Your task to perform on an android device: Open Youtube and go to the subscriptions tab Image 0: 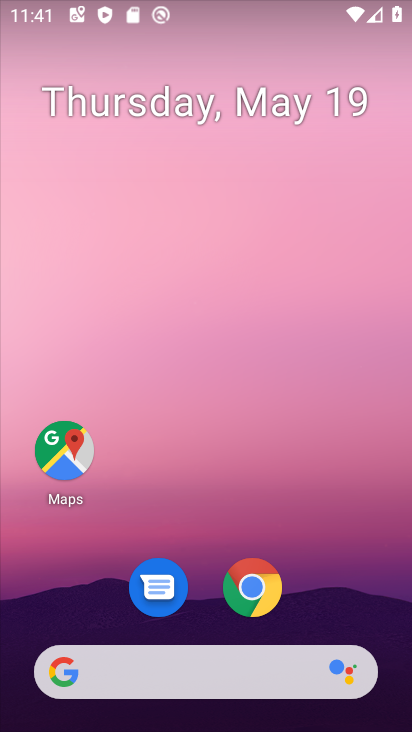
Step 0: drag from (189, 669) to (138, 181)
Your task to perform on an android device: Open Youtube and go to the subscriptions tab Image 1: 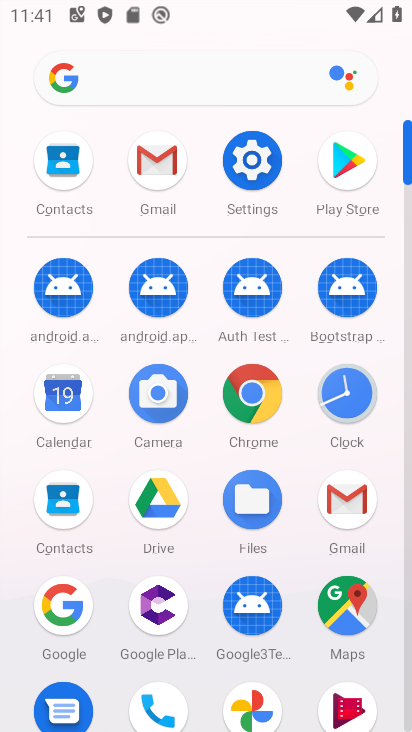
Step 1: drag from (253, 620) to (206, 158)
Your task to perform on an android device: Open Youtube and go to the subscriptions tab Image 2: 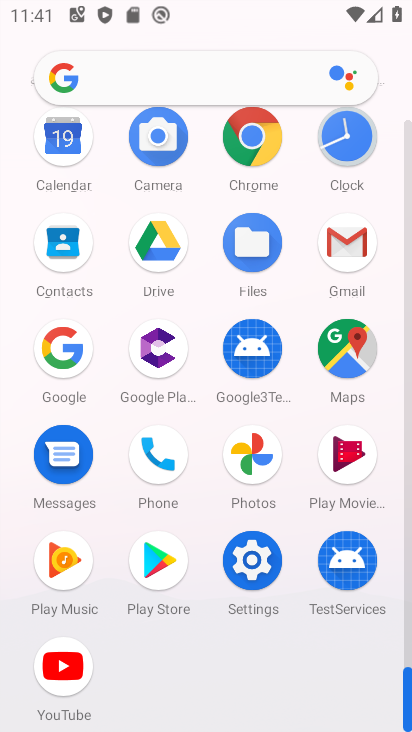
Step 2: click (81, 671)
Your task to perform on an android device: Open Youtube and go to the subscriptions tab Image 3: 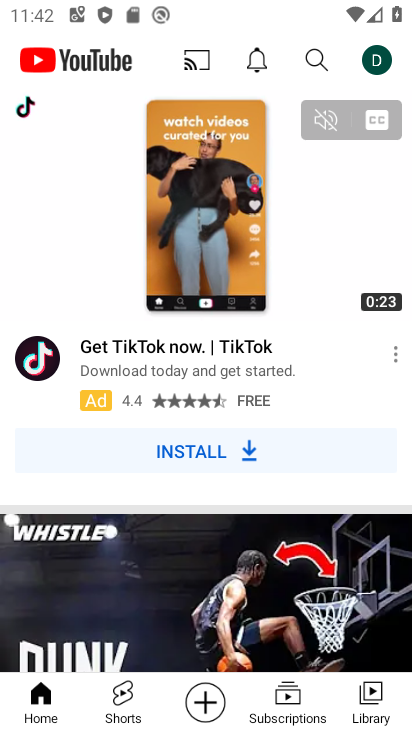
Step 3: click (289, 713)
Your task to perform on an android device: Open Youtube and go to the subscriptions tab Image 4: 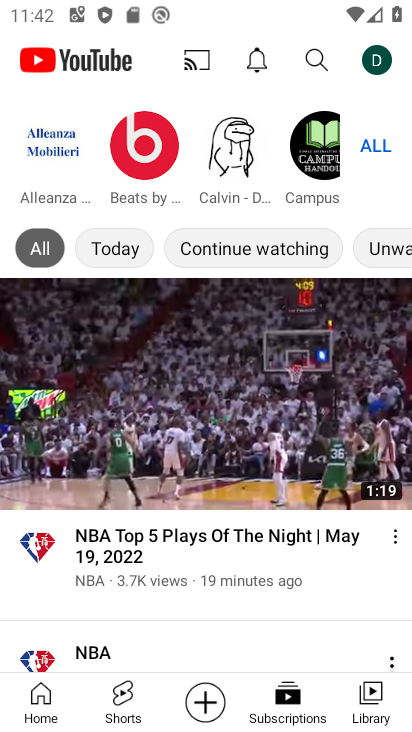
Step 4: task complete